Your task to perform on an android device: toggle show notifications on the lock screen Image 0: 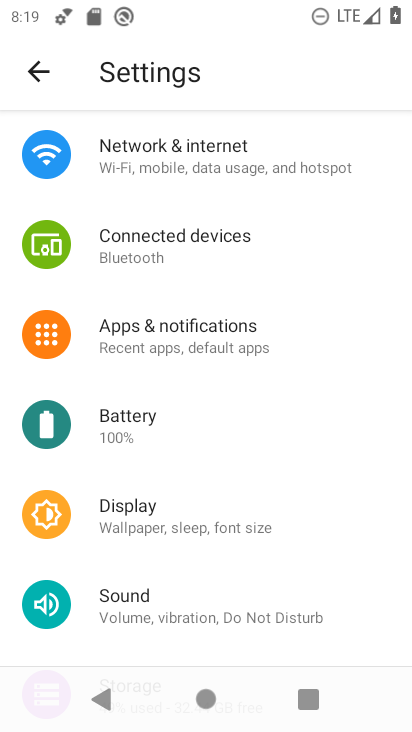
Step 0: press home button
Your task to perform on an android device: toggle show notifications on the lock screen Image 1: 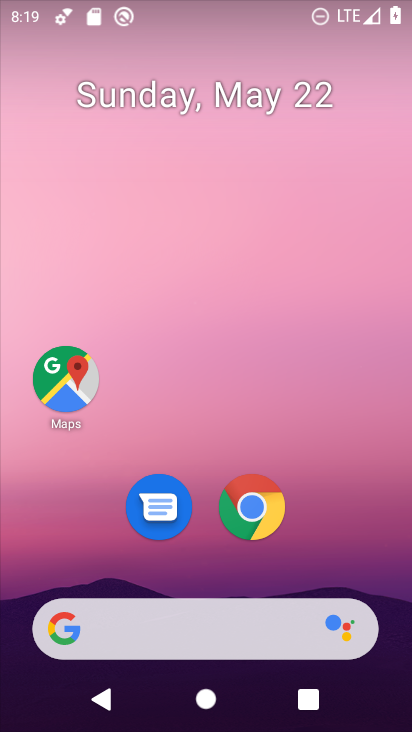
Step 1: drag from (148, 693) to (100, 0)
Your task to perform on an android device: toggle show notifications on the lock screen Image 2: 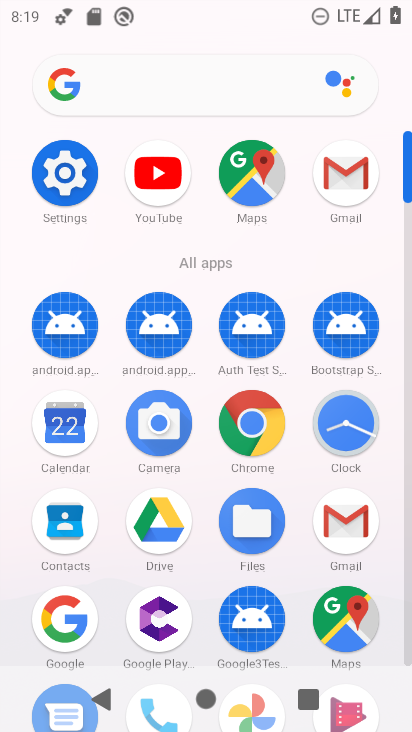
Step 2: click (82, 182)
Your task to perform on an android device: toggle show notifications on the lock screen Image 3: 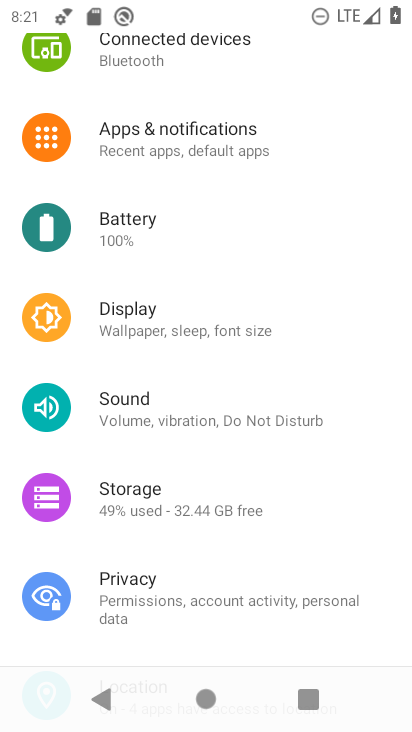
Step 3: click (264, 132)
Your task to perform on an android device: toggle show notifications on the lock screen Image 4: 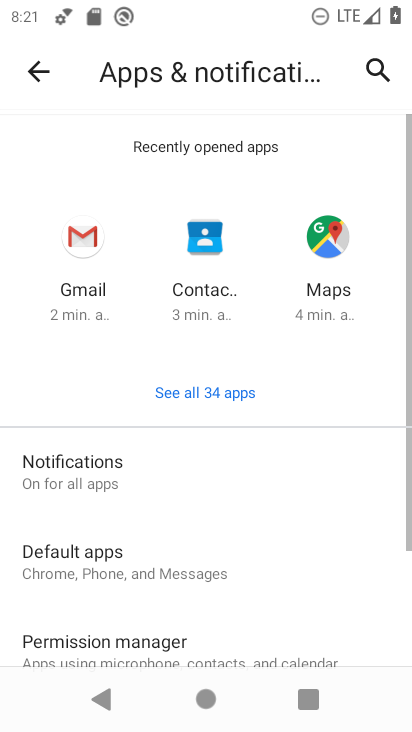
Step 4: click (122, 434)
Your task to perform on an android device: toggle show notifications on the lock screen Image 5: 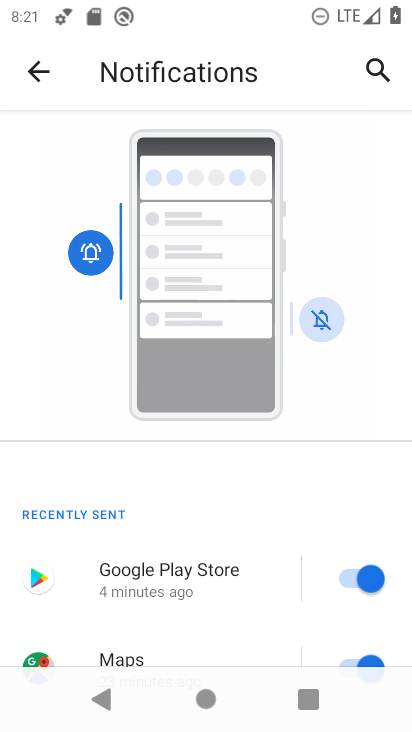
Step 5: drag from (232, 634) to (180, 28)
Your task to perform on an android device: toggle show notifications on the lock screen Image 6: 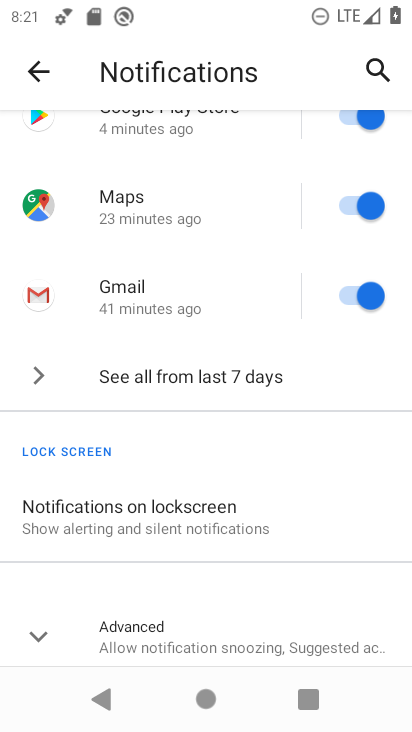
Step 6: click (206, 526)
Your task to perform on an android device: toggle show notifications on the lock screen Image 7: 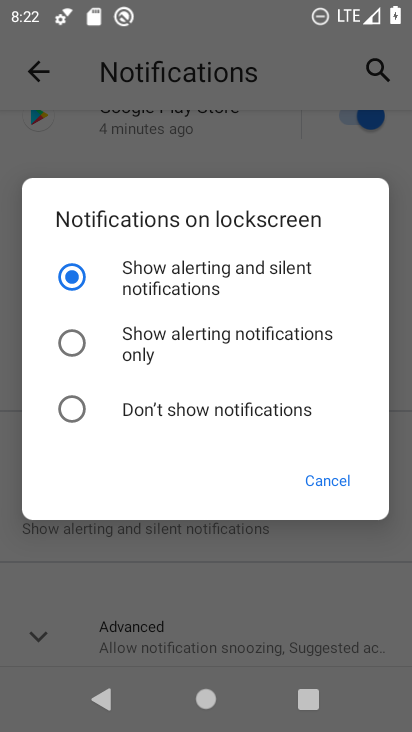
Step 7: click (186, 409)
Your task to perform on an android device: toggle show notifications on the lock screen Image 8: 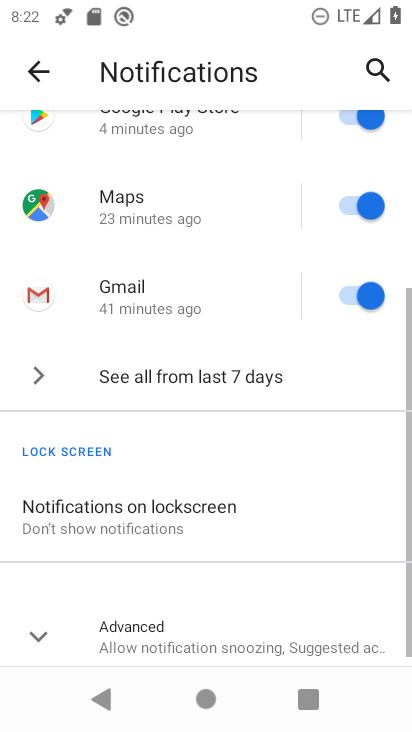
Step 8: task complete